Your task to perform on an android device: turn pop-ups on in chrome Image 0: 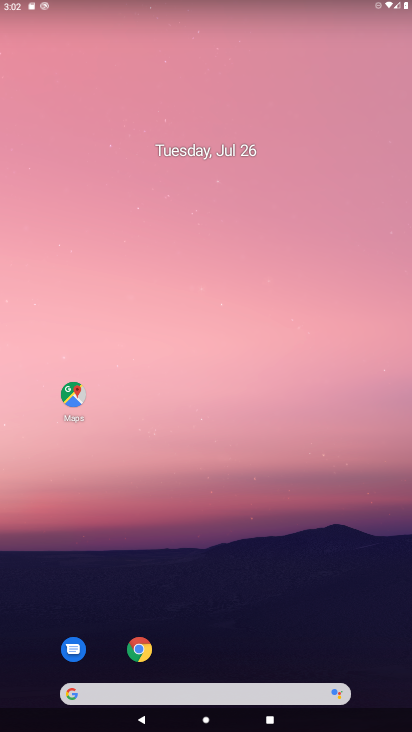
Step 0: click (138, 649)
Your task to perform on an android device: turn pop-ups on in chrome Image 1: 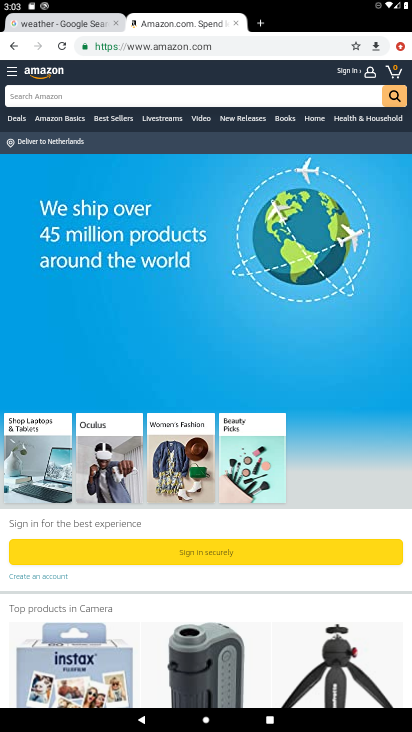
Step 1: drag from (399, 43) to (326, 337)
Your task to perform on an android device: turn pop-ups on in chrome Image 2: 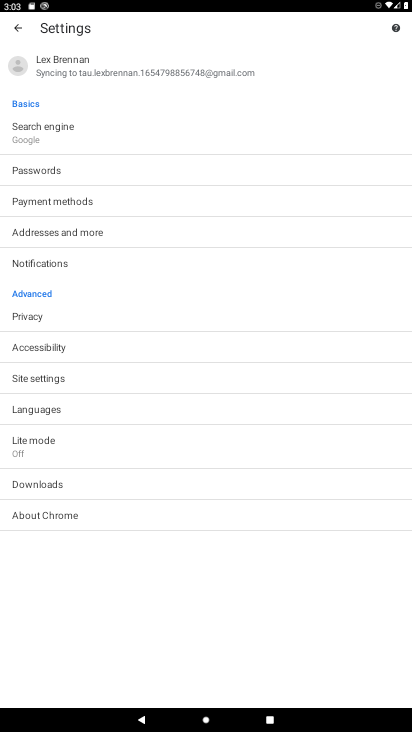
Step 2: click (72, 373)
Your task to perform on an android device: turn pop-ups on in chrome Image 3: 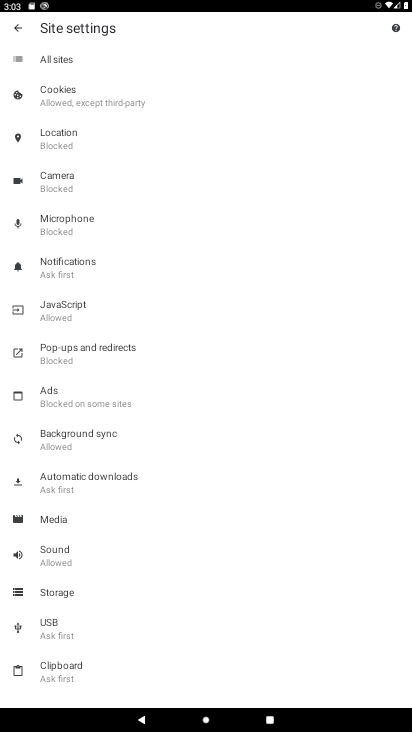
Step 3: click (113, 348)
Your task to perform on an android device: turn pop-ups on in chrome Image 4: 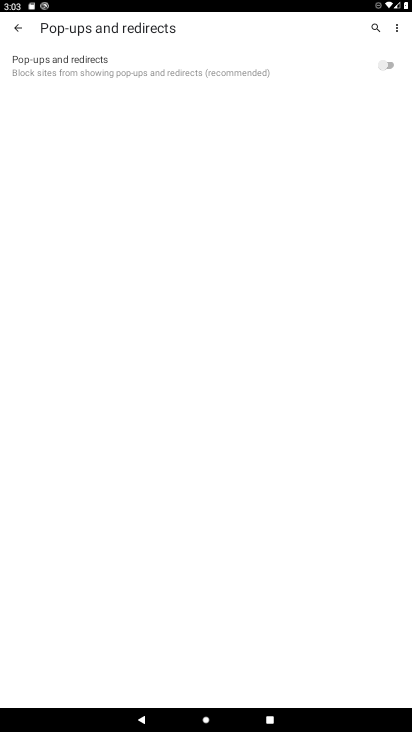
Step 4: click (385, 67)
Your task to perform on an android device: turn pop-ups on in chrome Image 5: 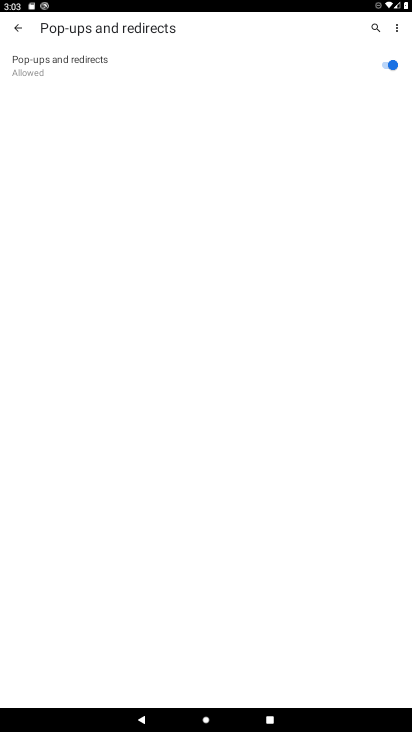
Step 5: task complete